Your task to perform on an android device: Go to display settings Image 0: 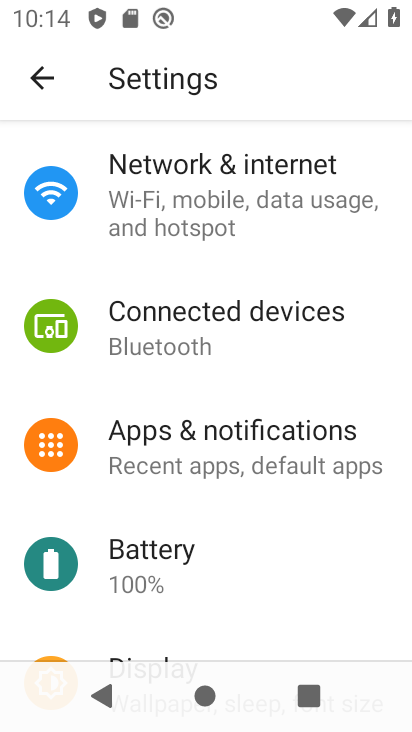
Step 0: drag from (179, 525) to (291, 62)
Your task to perform on an android device: Go to display settings Image 1: 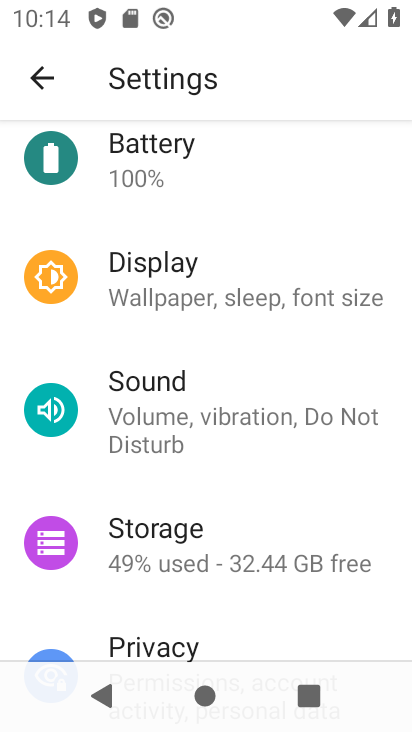
Step 1: click (199, 300)
Your task to perform on an android device: Go to display settings Image 2: 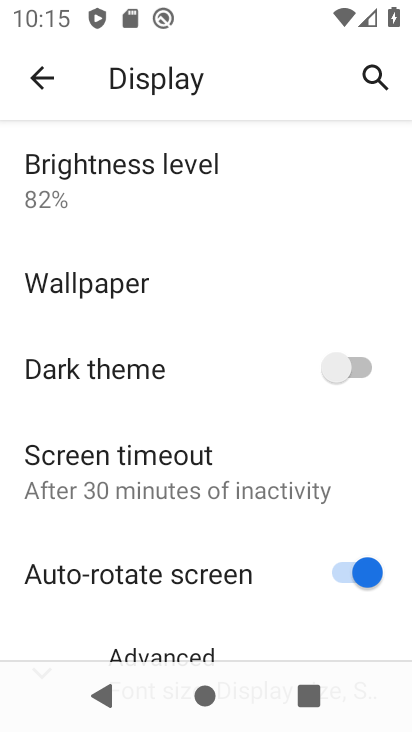
Step 2: task complete